Your task to perform on an android device: set the timer Image 0: 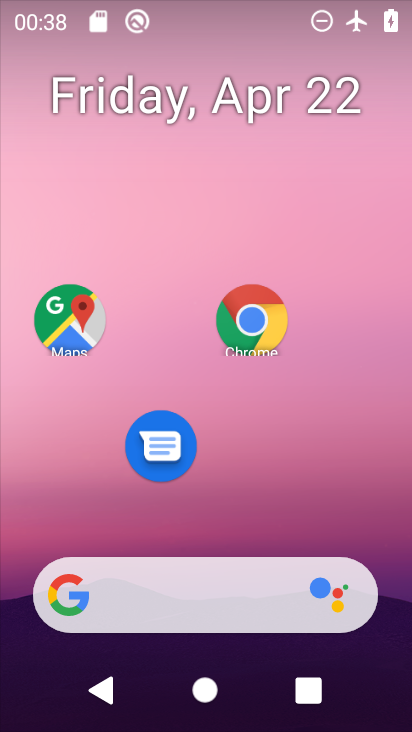
Step 0: drag from (203, 535) to (183, 83)
Your task to perform on an android device: set the timer Image 1: 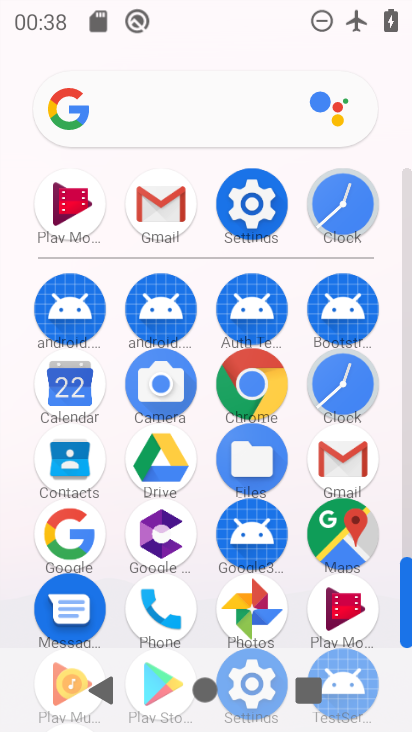
Step 1: click (343, 425)
Your task to perform on an android device: set the timer Image 2: 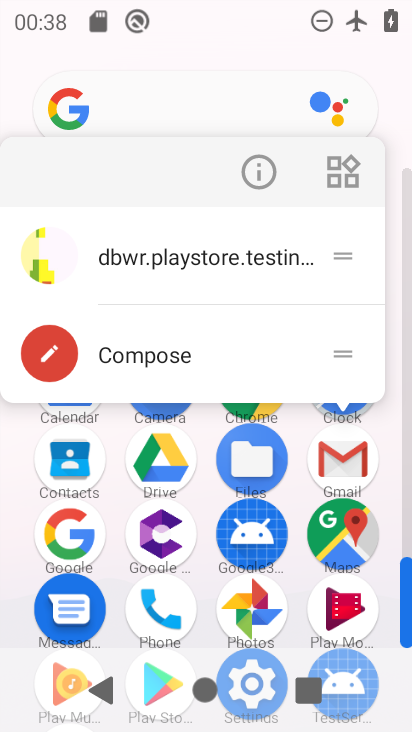
Step 2: click (396, 417)
Your task to perform on an android device: set the timer Image 3: 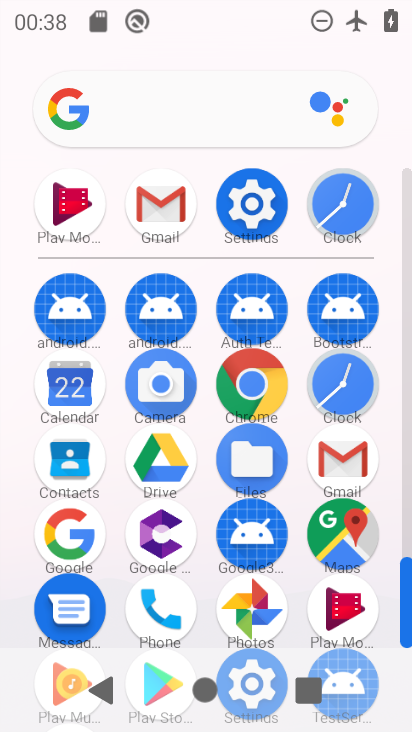
Step 3: click (340, 387)
Your task to perform on an android device: set the timer Image 4: 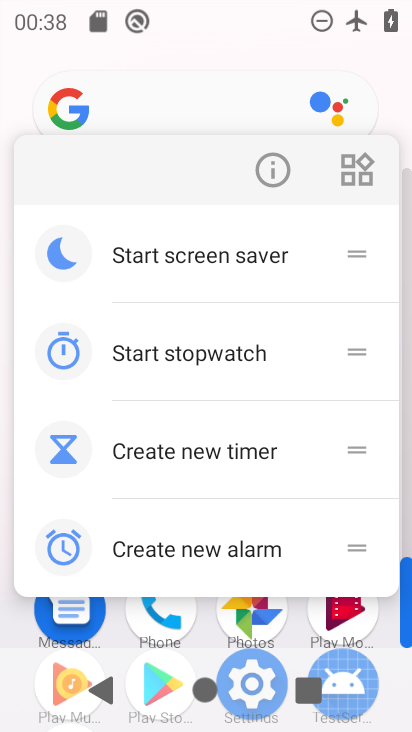
Step 4: click (281, 163)
Your task to perform on an android device: set the timer Image 5: 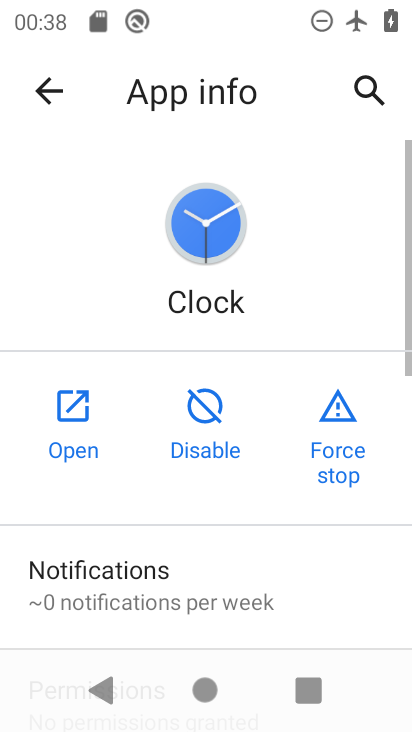
Step 5: click (86, 426)
Your task to perform on an android device: set the timer Image 6: 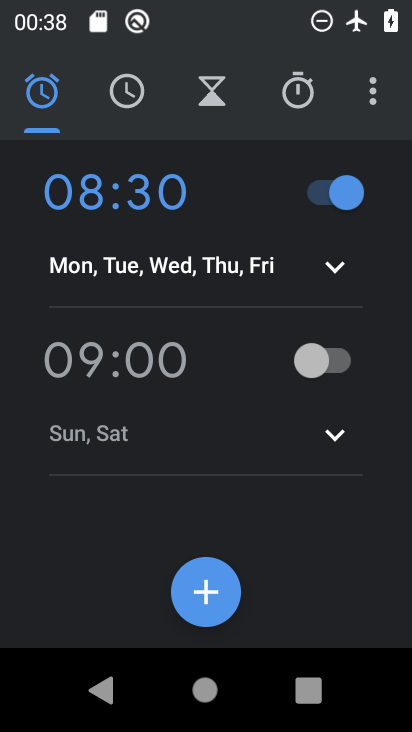
Step 6: click (211, 100)
Your task to perform on an android device: set the timer Image 7: 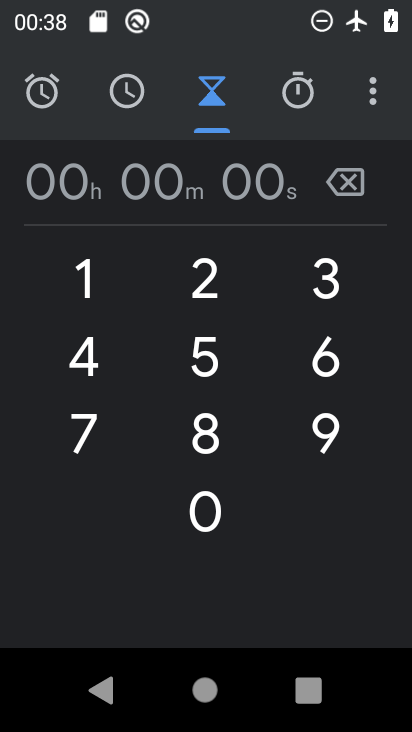
Step 7: click (178, 302)
Your task to perform on an android device: set the timer Image 8: 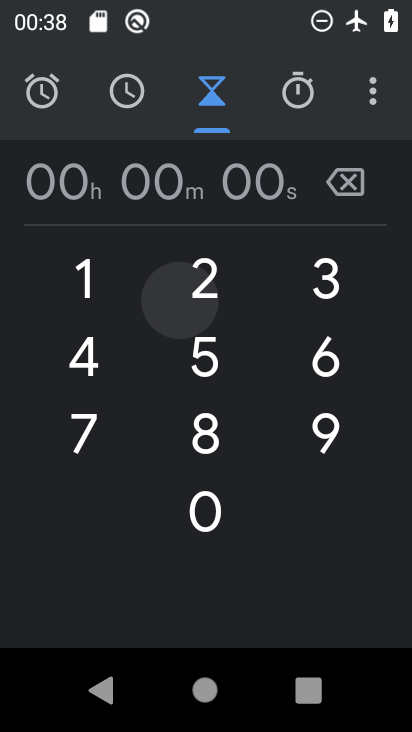
Step 8: click (325, 276)
Your task to perform on an android device: set the timer Image 9: 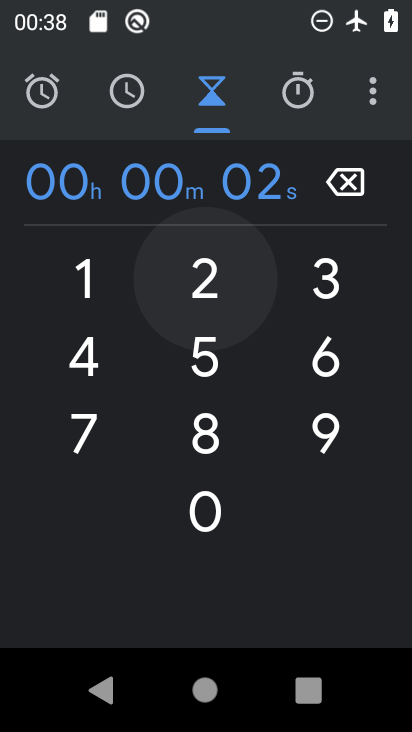
Step 9: click (317, 343)
Your task to perform on an android device: set the timer Image 10: 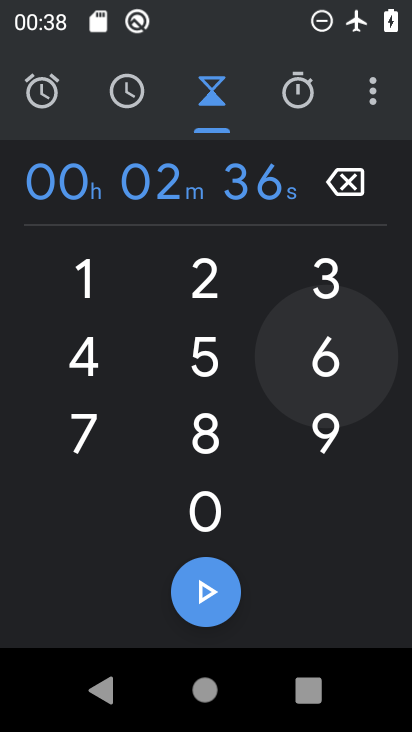
Step 10: click (217, 453)
Your task to perform on an android device: set the timer Image 11: 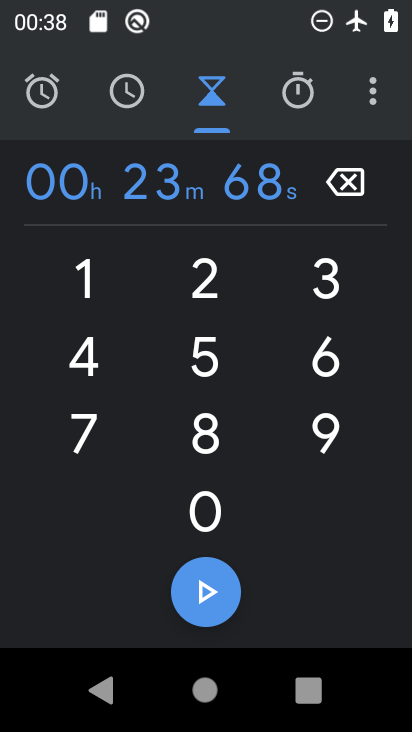
Step 11: click (204, 593)
Your task to perform on an android device: set the timer Image 12: 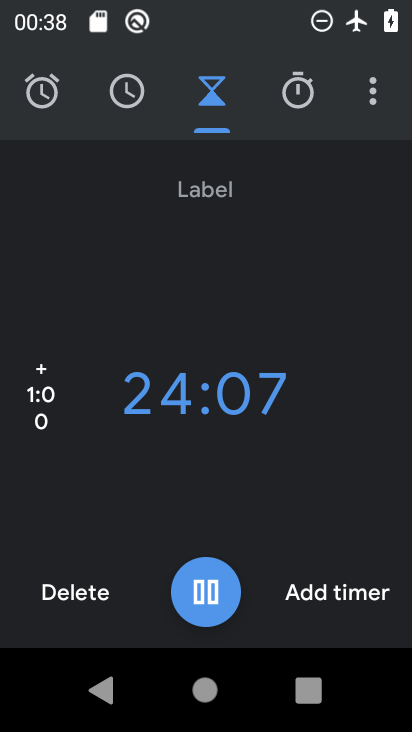
Step 12: task complete